Your task to perform on an android device: Open calendar and show me the first week of next month Image 0: 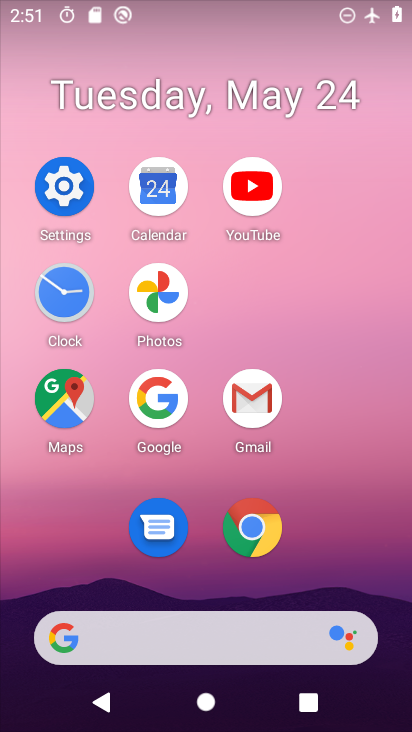
Step 0: click (159, 196)
Your task to perform on an android device: Open calendar and show me the first week of next month Image 1: 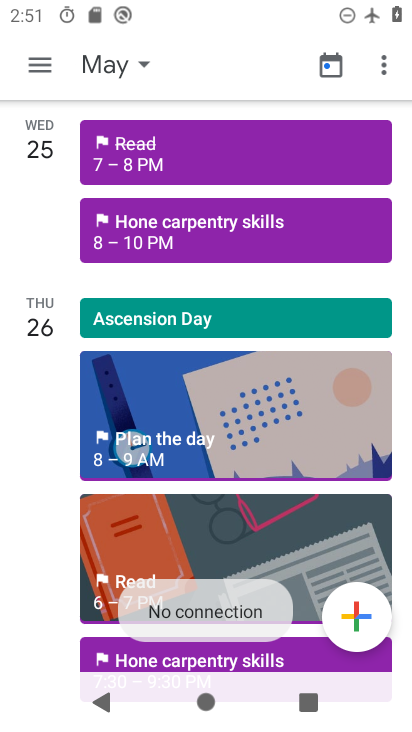
Step 1: click (138, 81)
Your task to perform on an android device: Open calendar and show me the first week of next month Image 2: 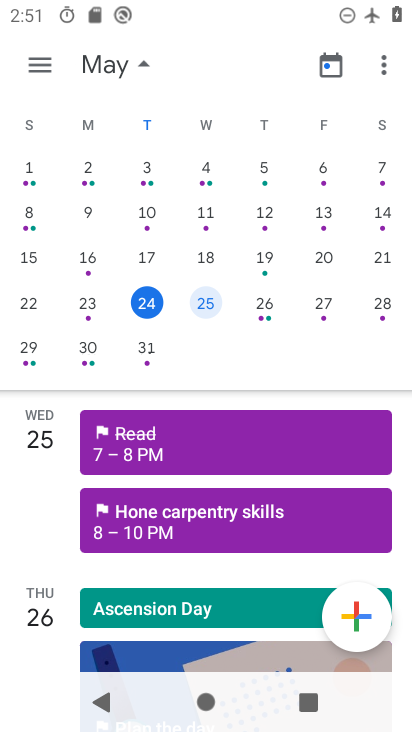
Step 2: drag from (388, 250) to (6, 51)
Your task to perform on an android device: Open calendar and show me the first week of next month Image 3: 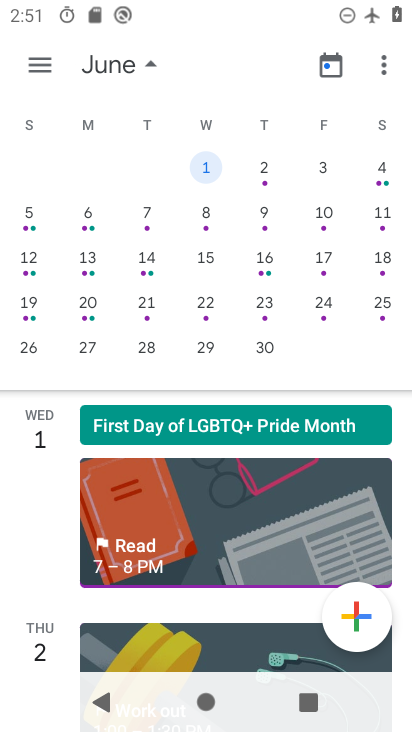
Step 3: click (46, 68)
Your task to perform on an android device: Open calendar and show me the first week of next month Image 4: 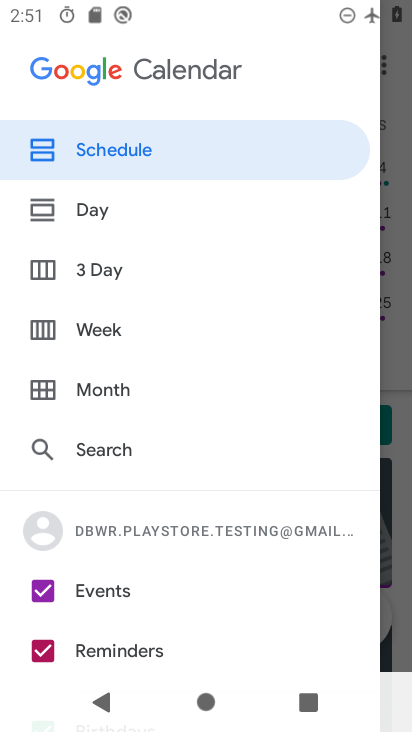
Step 4: click (129, 321)
Your task to perform on an android device: Open calendar and show me the first week of next month Image 5: 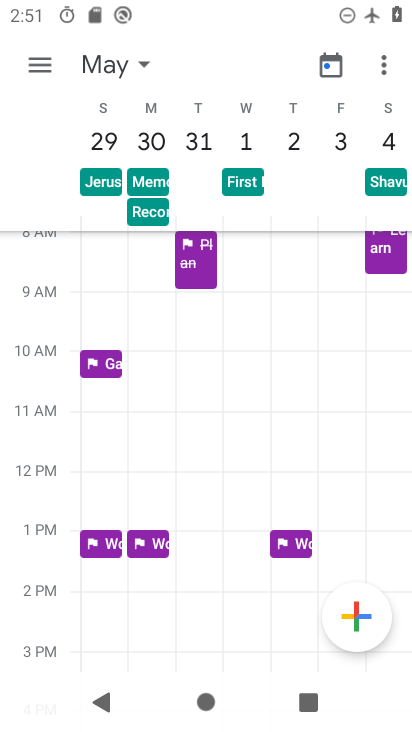
Step 5: task complete